Your task to perform on an android device: Go to Android settings Image 0: 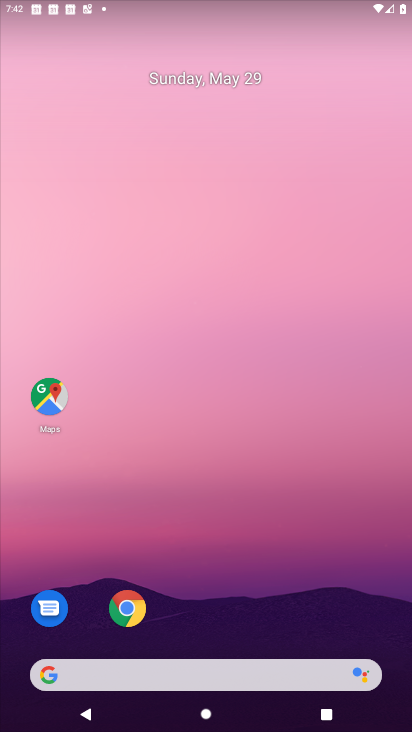
Step 0: drag from (239, 549) to (84, 107)
Your task to perform on an android device: Go to Android settings Image 1: 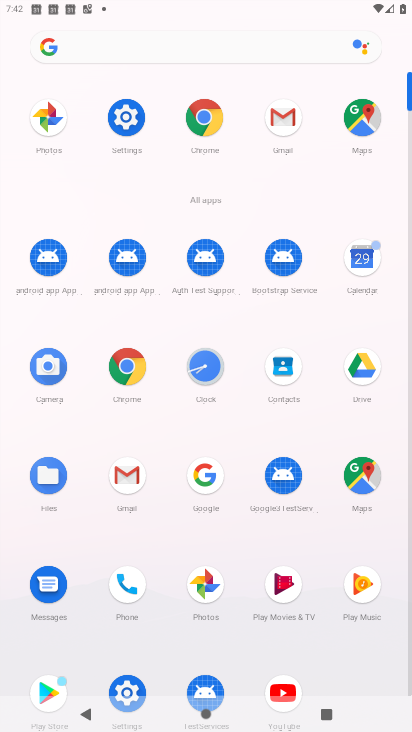
Step 1: click (119, 110)
Your task to perform on an android device: Go to Android settings Image 2: 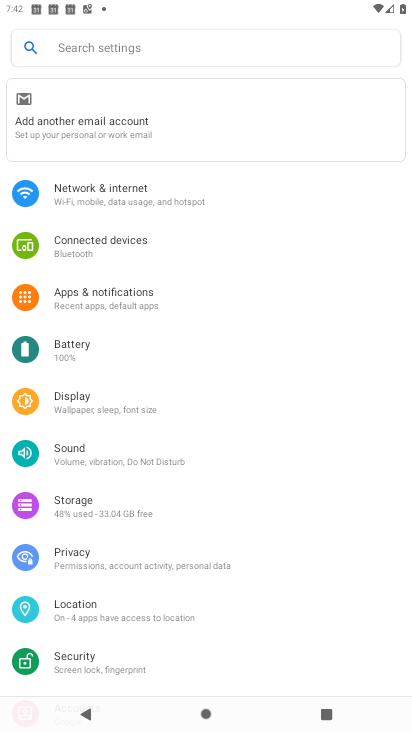
Step 2: task complete